Your task to perform on an android device: read, delete, or share a saved page in the chrome app Image 0: 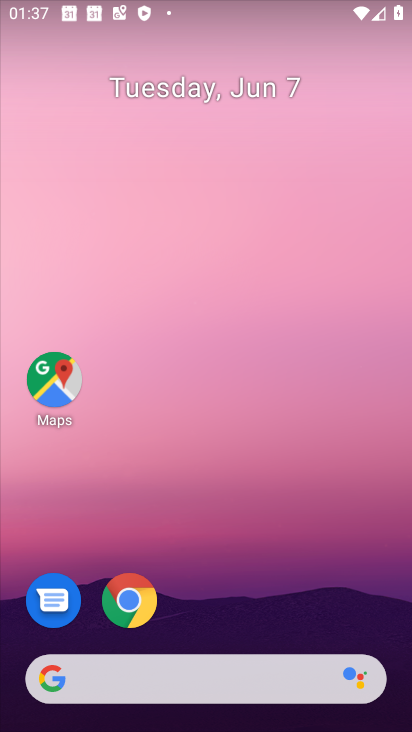
Step 0: click (136, 610)
Your task to perform on an android device: read, delete, or share a saved page in the chrome app Image 1: 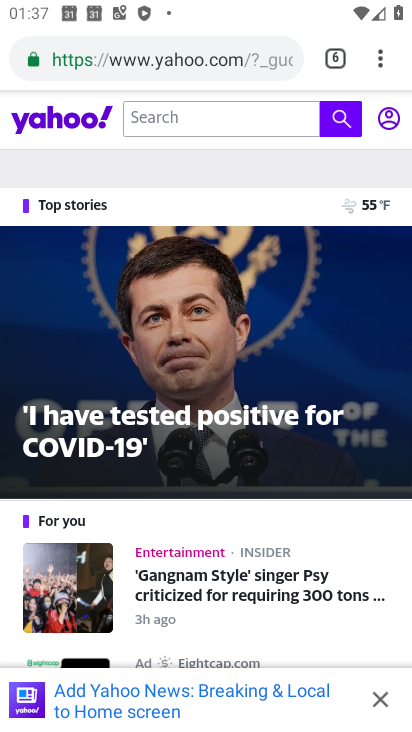
Step 1: click (382, 62)
Your task to perform on an android device: read, delete, or share a saved page in the chrome app Image 2: 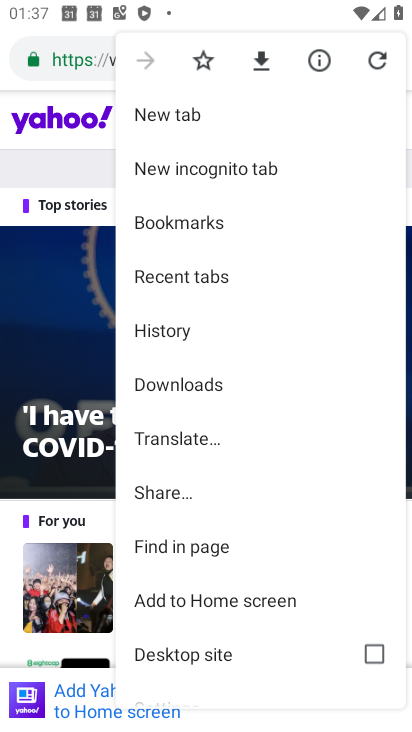
Step 2: click (177, 381)
Your task to perform on an android device: read, delete, or share a saved page in the chrome app Image 3: 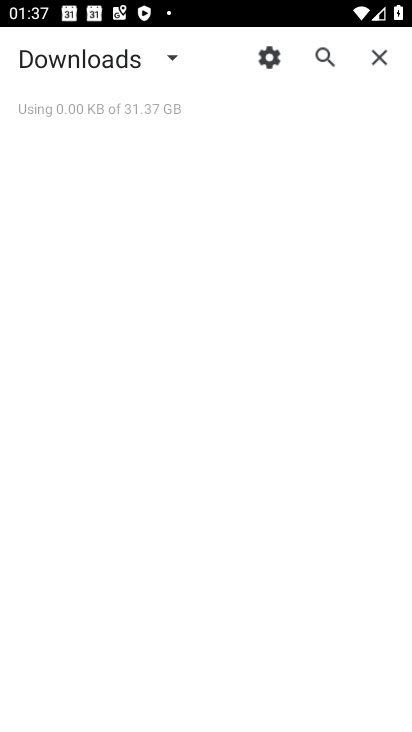
Step 3: click (171, 56)
Your task to perform on an android device: read, delete, or share a saved page in the chrome app Image 4: 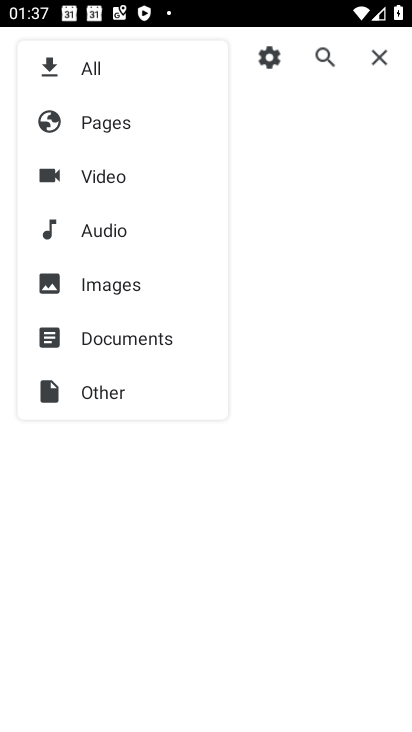
Step 4: click (106, 121)
Your task to perform on an android device: read, delete, or share a saved page in the chrome app Image 5: 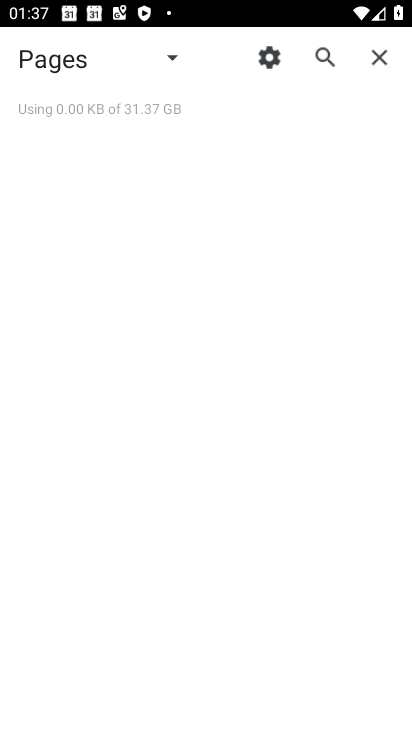
Step 5: task complete